Your task to perform on an android device: turn pop-ups on in chrome Image 0: 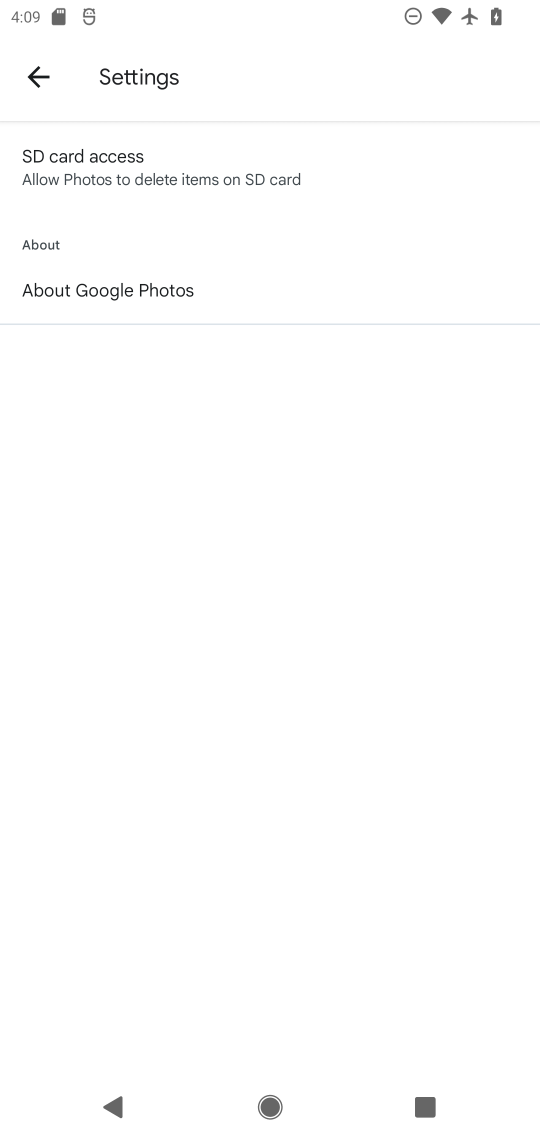
Step 0: press home button
Your task to perform on an android device: turn pop-ups on in chrome Image 1: 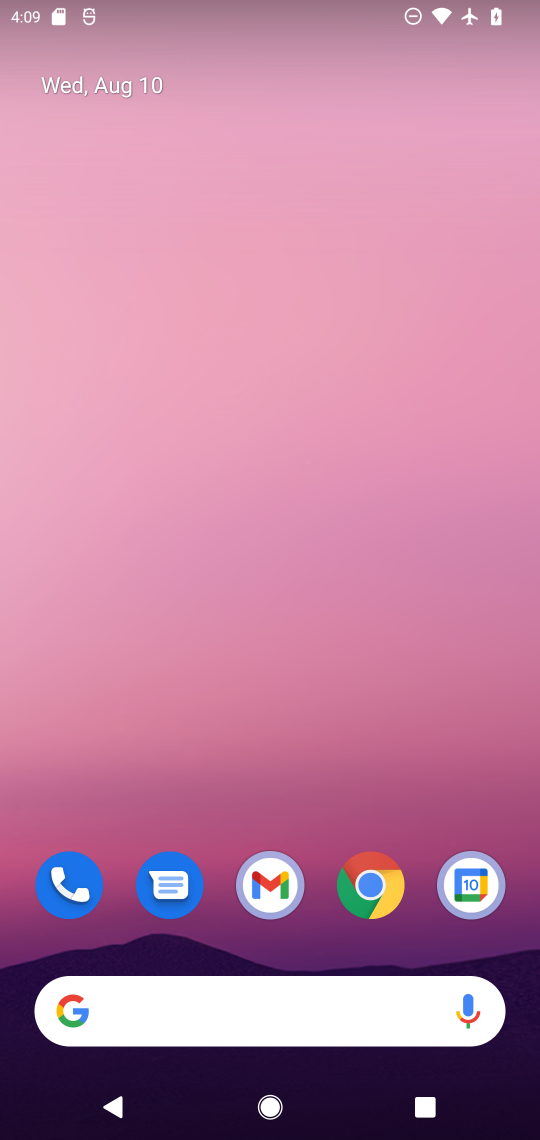
Step 1: click (368, 879)
Your task to perform on an android device: turn pop-ups on in chrome Image 2: 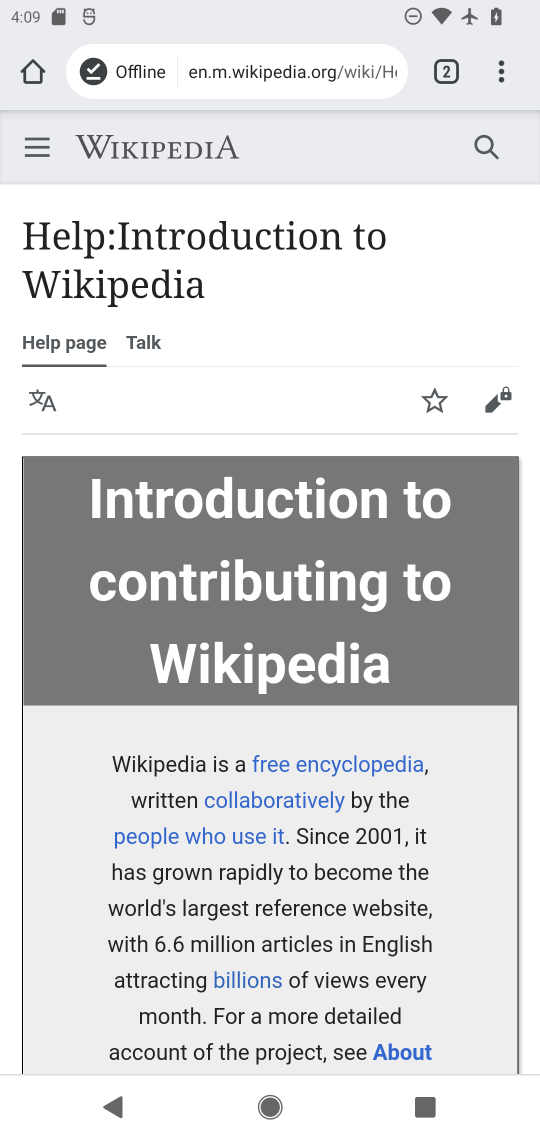
Step 2: click (504, 74)
Your task to perform on an android device: turn pop-ups on in chrome Image 3: 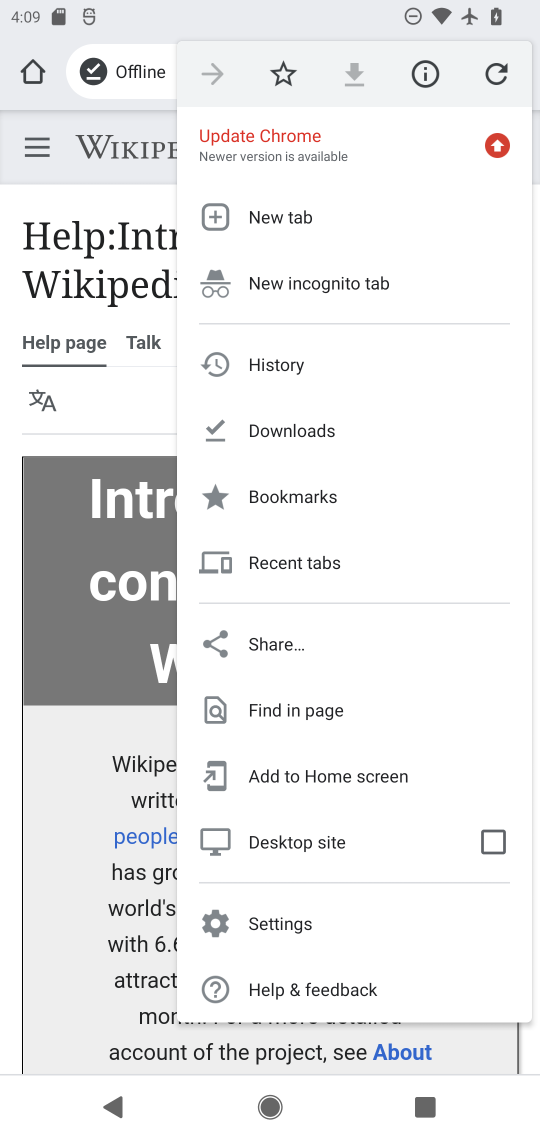
Step 3: click (281, 915)
Your task to perform on an android device: turn pop-ups on in chrome Image 4: 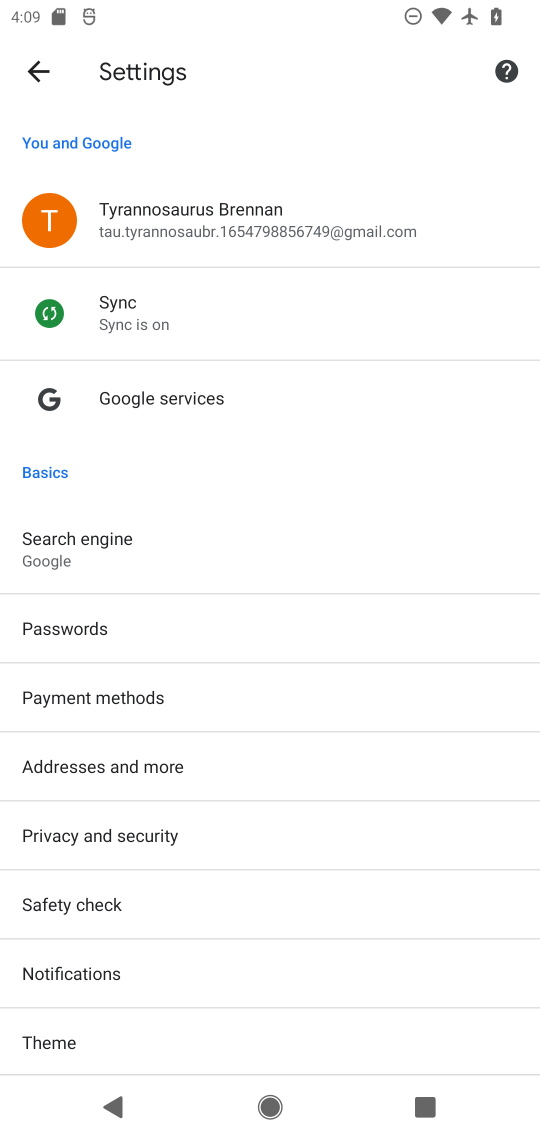
Step 4: drag from (251, 923) to (205, 453)
Your task to perform on an android device: turn pop-ups on in chrome Image 5: 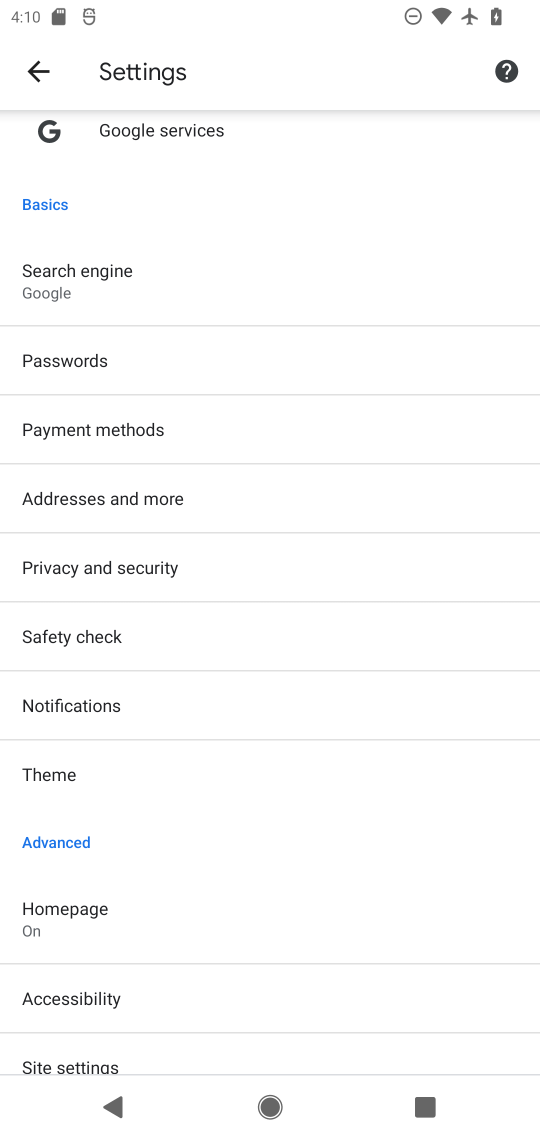
Step 5: click (83, 1057)
Your task to perform on an android device: turn pop-ups on in chrome Image 6: 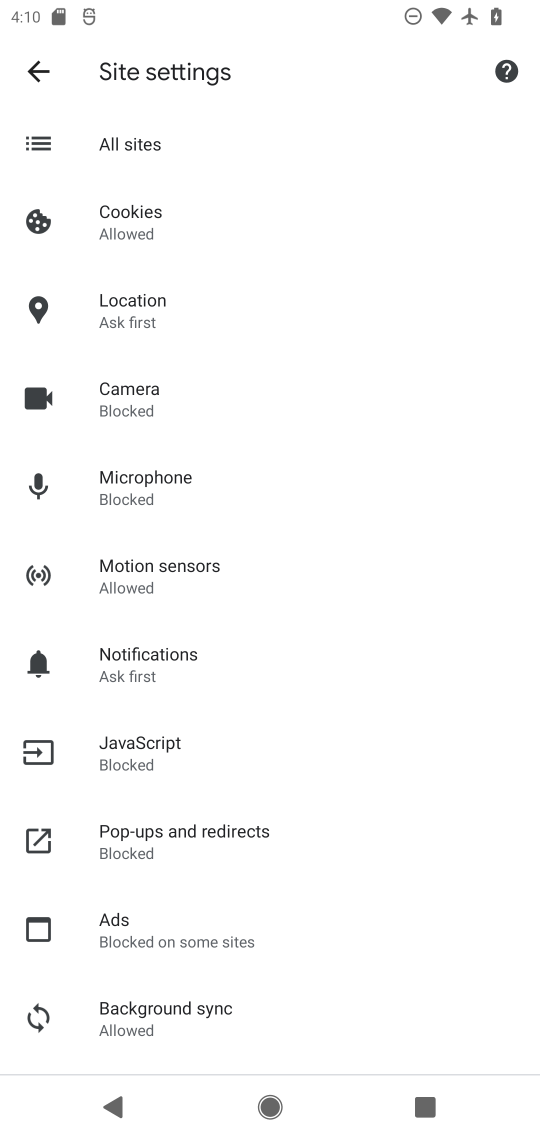
Step 6: click (145, 829)
Your task to perform on an android device: turn pop-ups on in chrome Image 7: 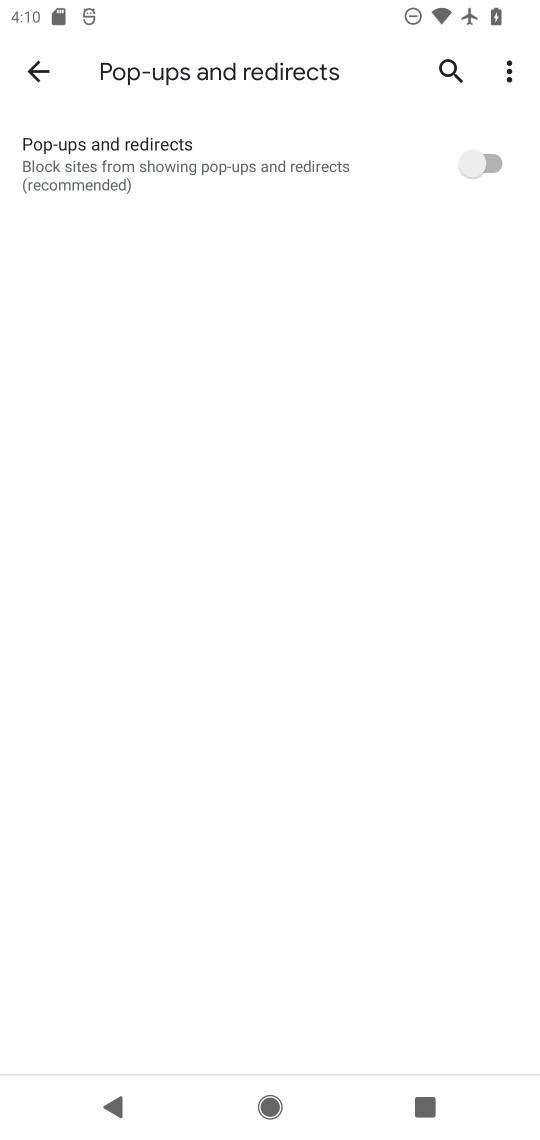
Step 7: click (481, 160)
Your task to perform on an android device: turn pop-ups on in chrome Image 8: 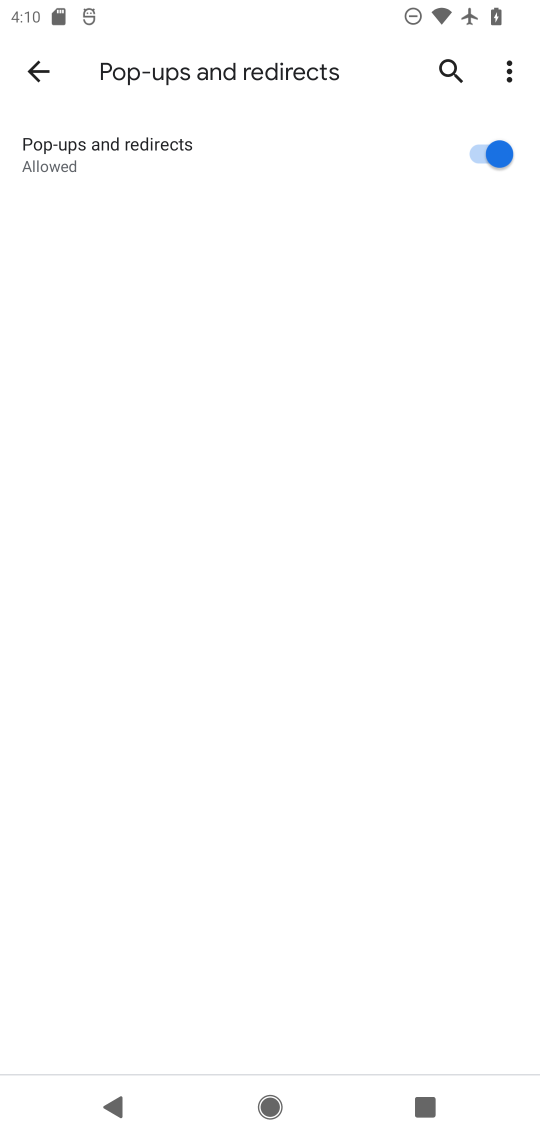
Step 8: task complete